Your task to perform on an android device: See recent photos Image 0: 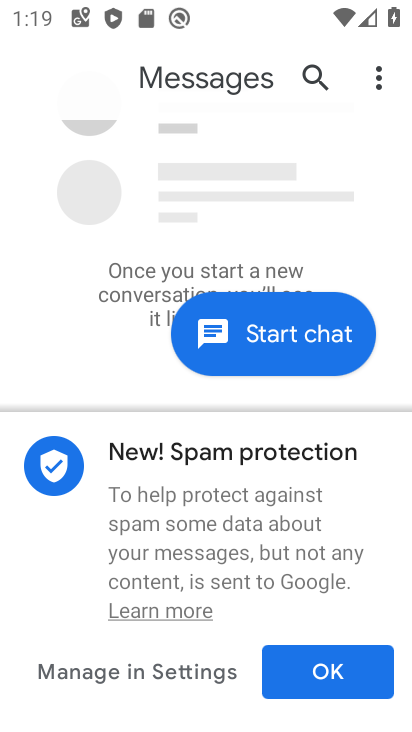
Step 0: press home button
Your task to perform on an android device: See recent photos Image 1: 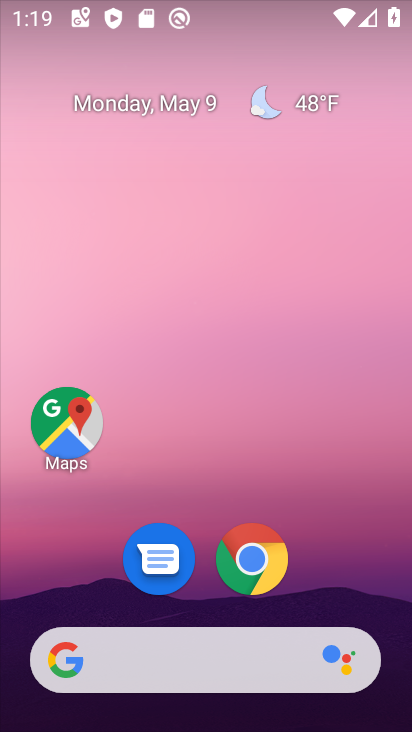
Step 1: drag from (338, 591) to (332, 343)
Your task to perform on an android device: See recent photos Image 2: 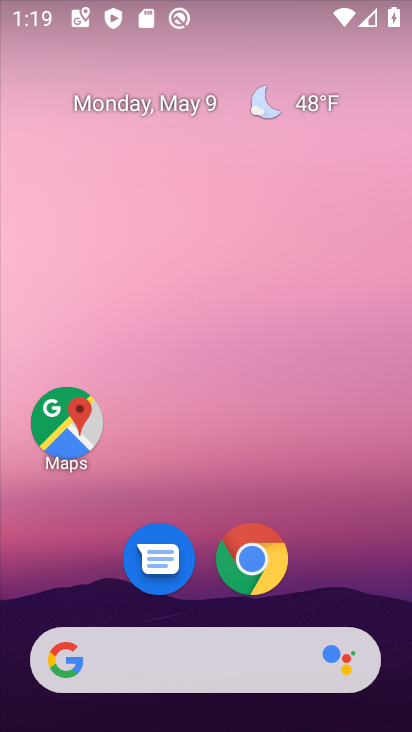
Step 2: drag from (349, 598) to (367, 333)
Your task to perform on an android device: See recent photos Image 3: 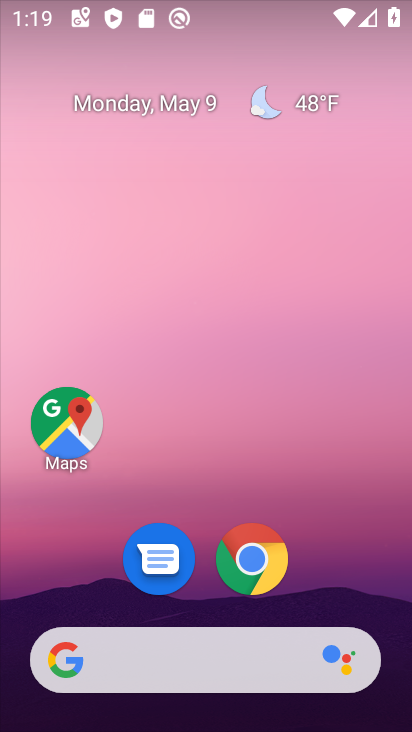
Step 3: drag from (306, 570) to (360, 252)
Your task to perform on an android device: See recent photos Image 4: 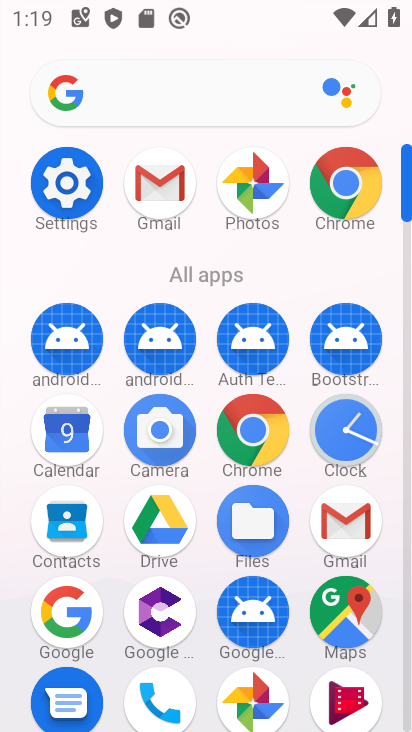
Step 4: click (258, 174)
Your task to perform on an android device: See recent photos Image 5: 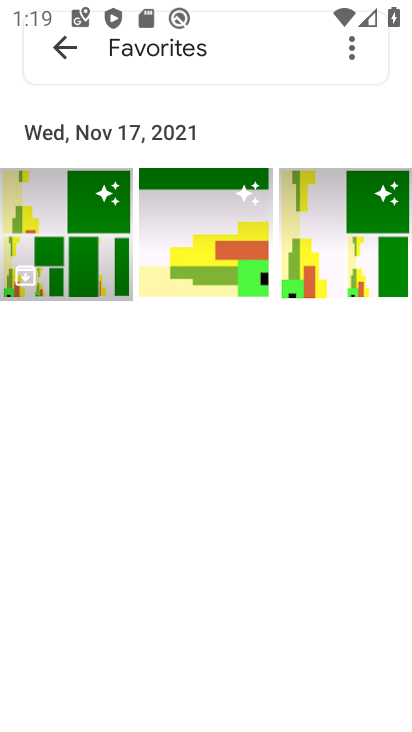
Step 5: click (81, 202)
Your task to perform on an android device: See recent photos Image 6: 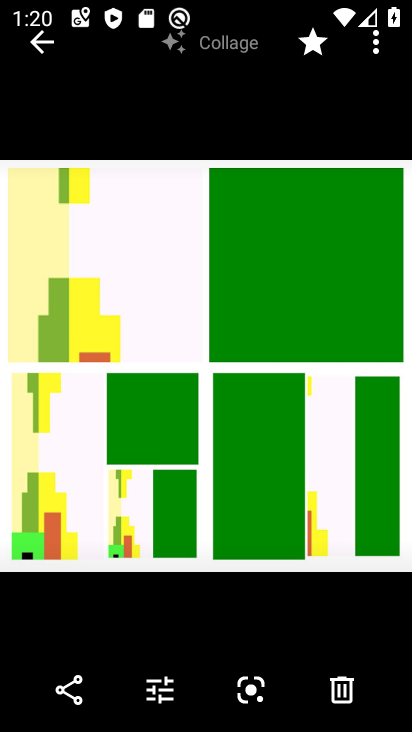
Step 6: task complete